Your task to perform on an android device: turn pop-ups off in chrome Image 0: 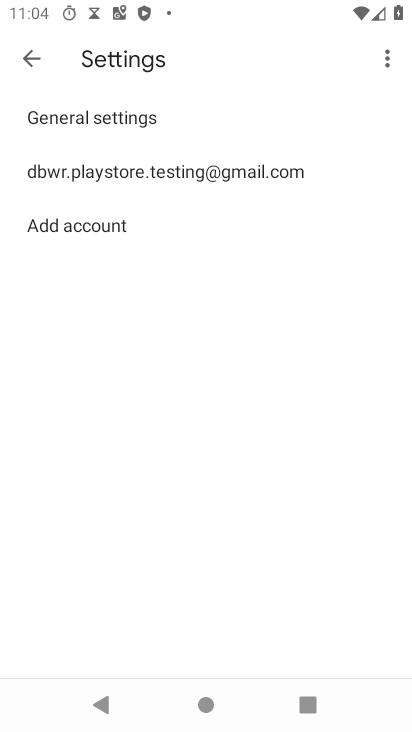
Step 0: press home button
Your task to perform on an android device: turn pop-ups off in chrome Image 1: 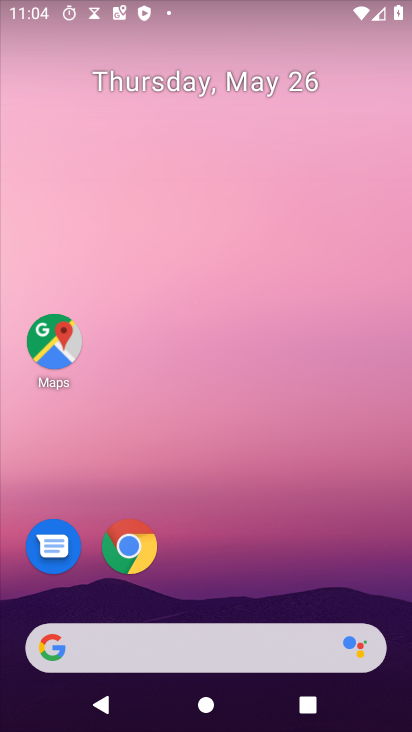
Step 1: drag from (343, 584) to (346, 207)
Your task to perform on an android device: turn pop-ups off in chrome Image 2: 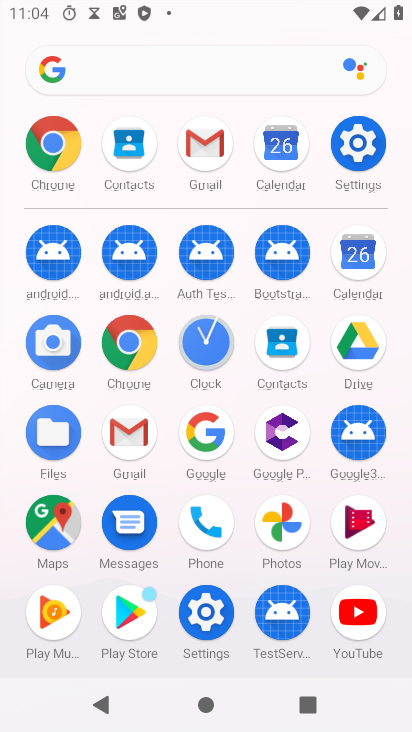
Step 2: click (130, 337)
Your task to perform on an android device: turn pop-ups off in chrome Image 3: 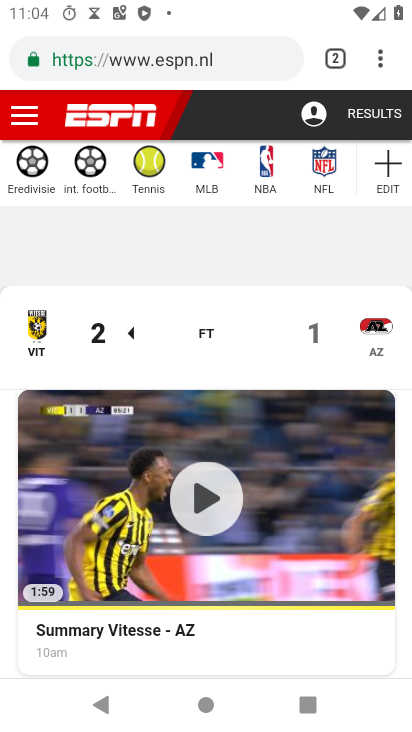
Step 3: click (383, 61)
Your task to perform on an android device: turn pop-ups off in chrome Image 4: 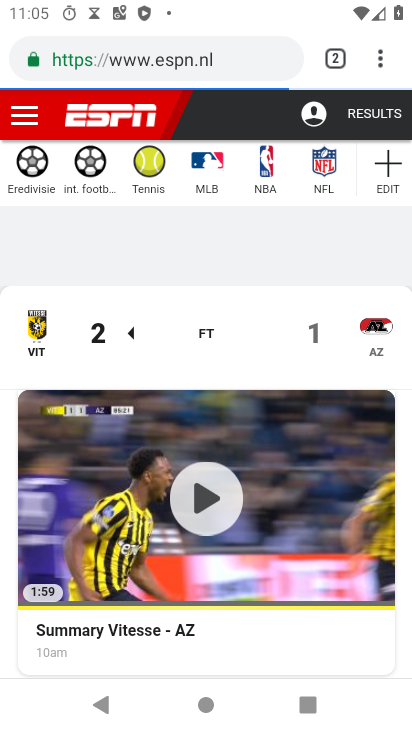
Step 4: drag from (383, 61) to (277, 589)
Your task to perform on an android device: turn pop-ups off in chrome Image 5: 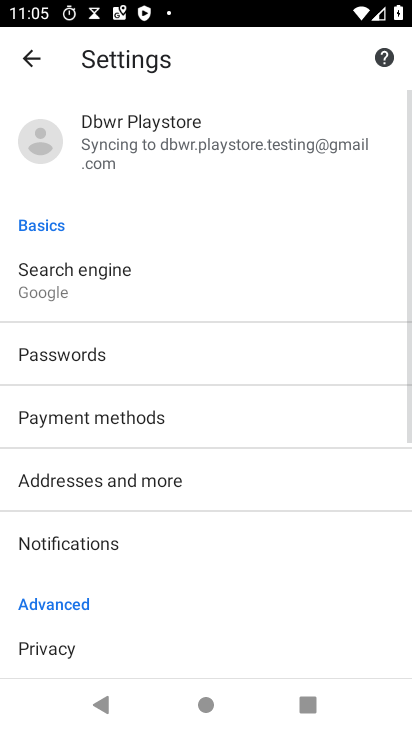
Step 5: drag from (287, 624) to (331, 265)
Your task to perform on an android device: turn pop-ups off in chrome Image 6: 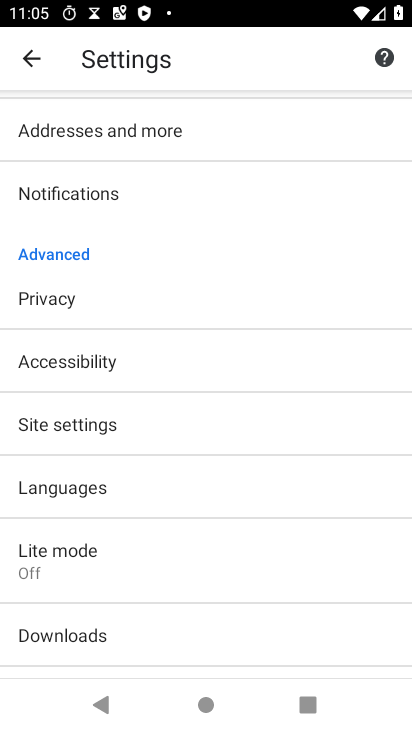
Step 6: drag from (328, 577) to (328, 325)
Your task to perform on an android device: turn pop-ups off in chrome Image 7: 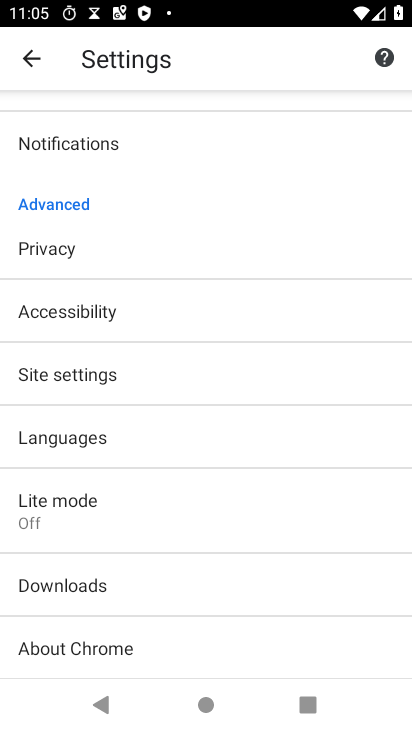
Step 7: drag from (248, 363) to (247, 587)
Your task to perform on an android device: turn pop-ups off in chrome Image 8: 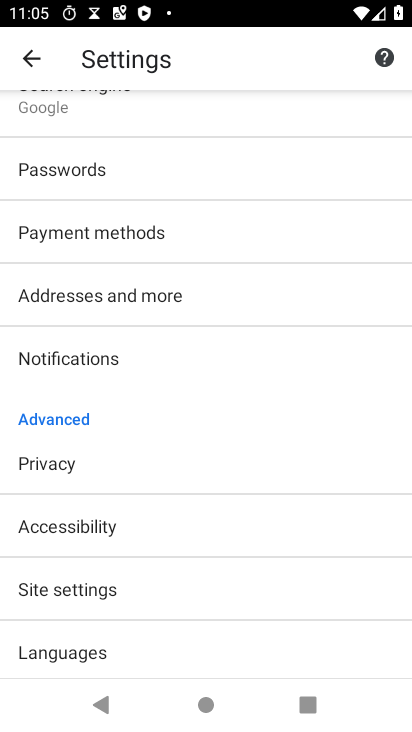
Step 8: drag from (259, 625) to (345, 284)
Your task to perform on an android device: turn pop-ups off in chrome Image 9: 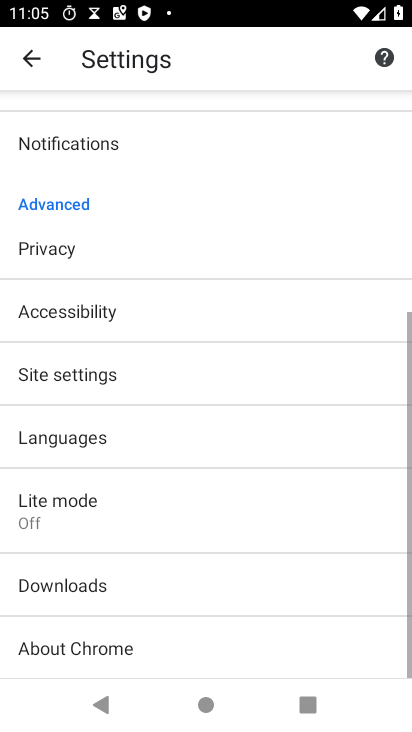
Step 9: click (230, 364)
Your task to perform on an android device: turn pop-ups off in chrome Image 10: 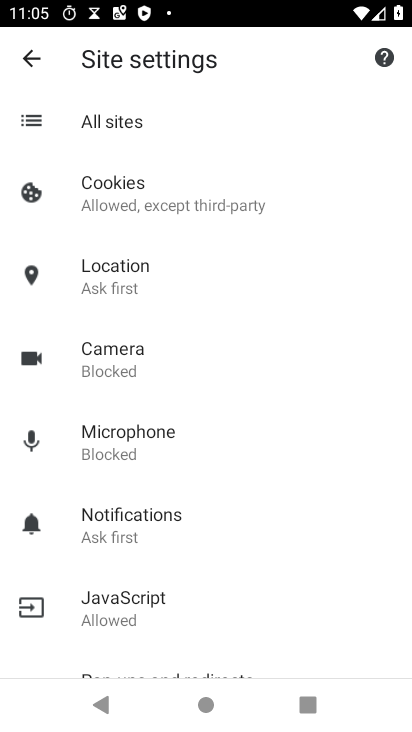
Step 10: drag from (262, 581) to (287, 327)
Your task to perform on an android device: turn pop-ups off in chrome Image 11: 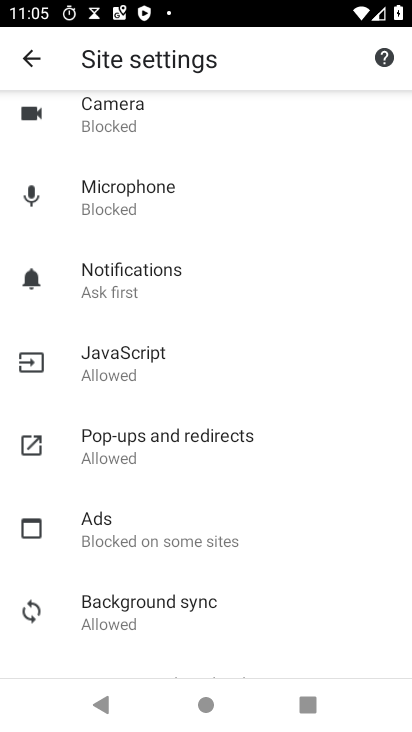
Step 11: click (225, 448)
Your task to perform on an android device: turn pop-ups off in chrome Image 12: 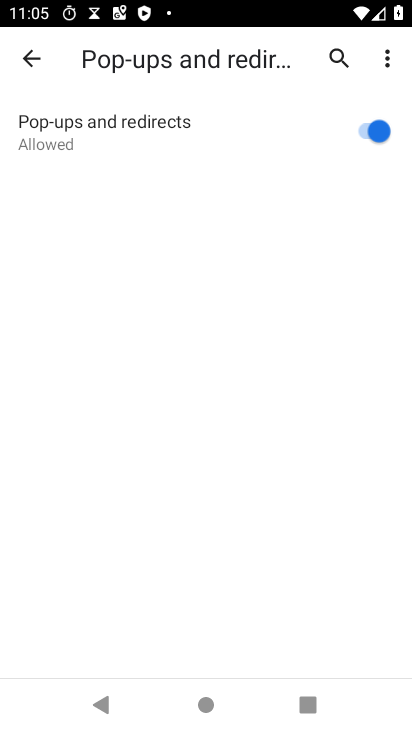
Step 12: click (367, 128)
Your task to perform on an android device: turn pop-ups off in chrome Image 13: 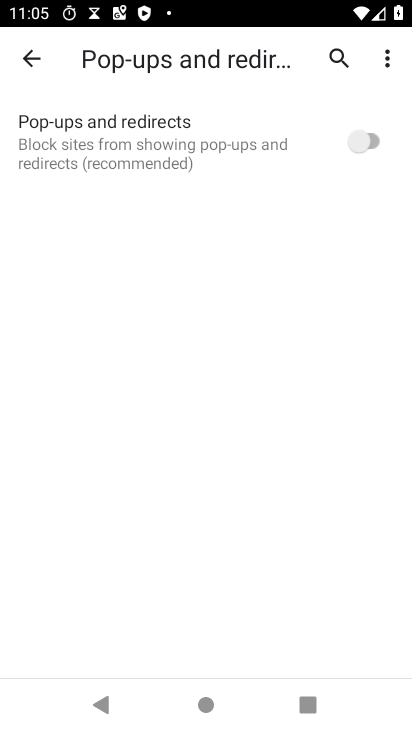
Step 13: task complete